Your task to perform on an android device: turn off translation in the chrome app Image 0: 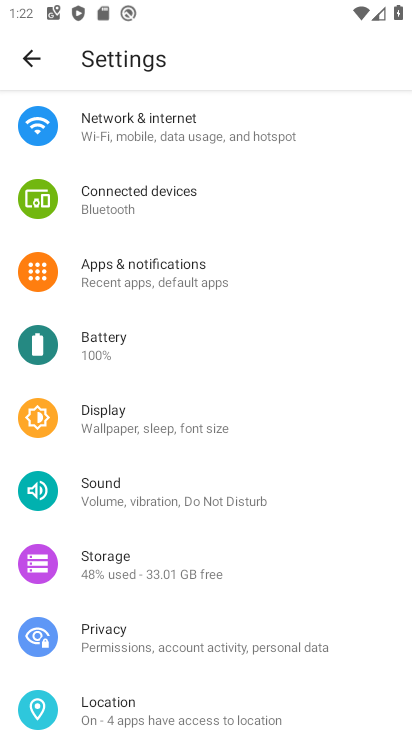
Step 0: drag from (200, 666) to (223, 231)
Your task to perform on an android device: turn off translation in the chrome app Image 1: 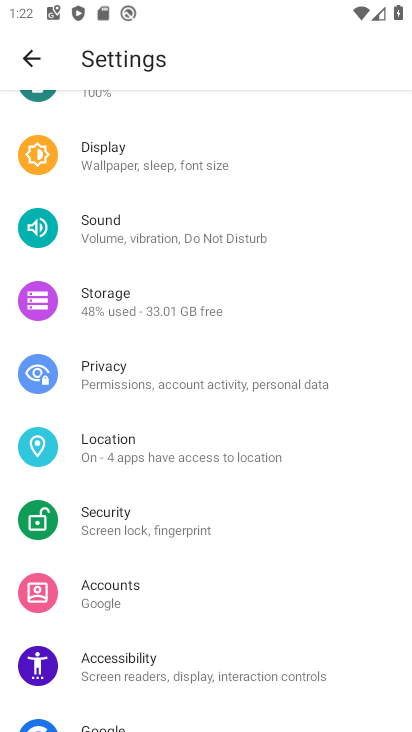
Step 1: press home button
Your task to perform on an android device: turn off translation in the chrome app Image 2: 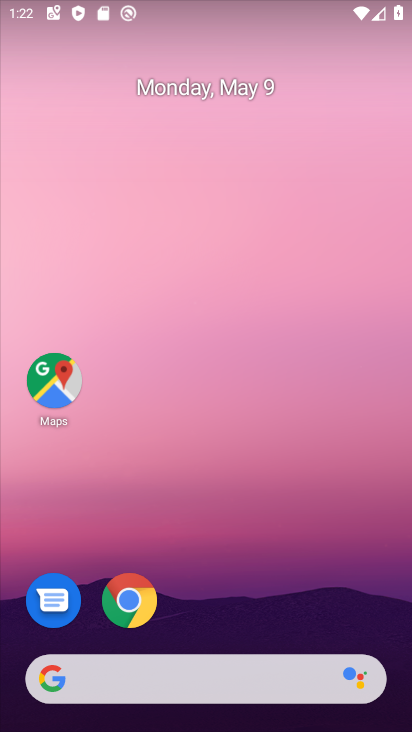
Step 2: click (122, 592)
Your task to perform on an android device: turn off translation in the chrome app Image 3: 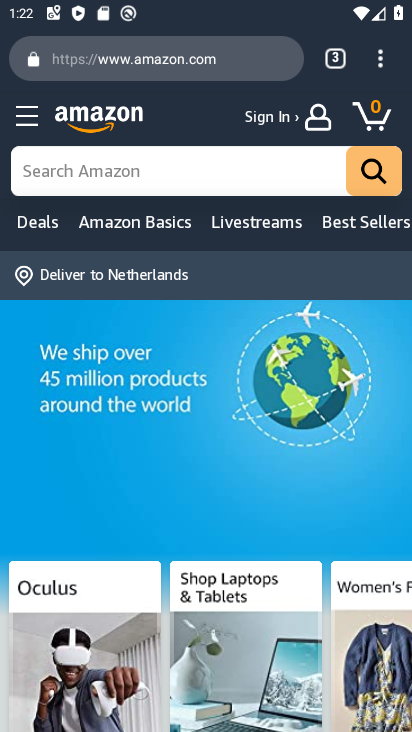
Step 3: click (396, 65)
Your task to perform on an android device: turn off translation in the chrome app Image 4: 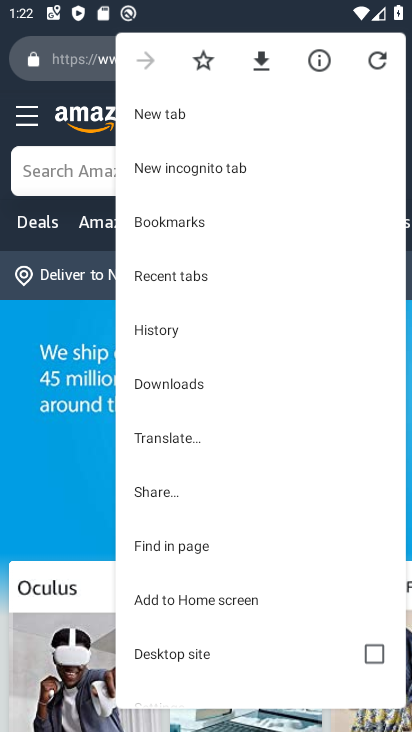
Step 4: drag from (236, 597) to (244, 92)
Your task to perform on an android device: turn off translation in the chrome app Image 5: 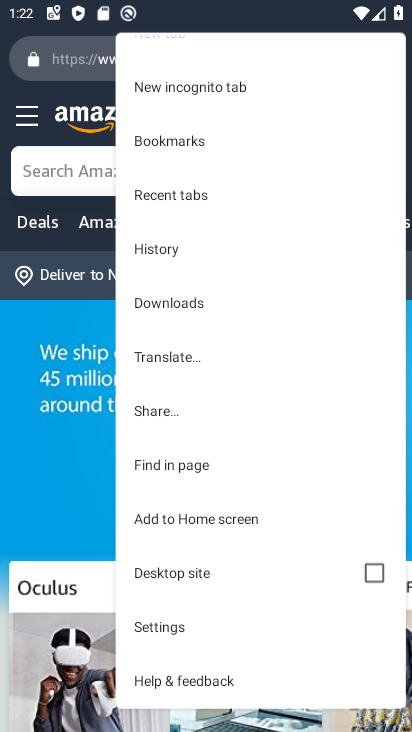
Step 5: click (176, 630)
Your task to perform on an android device: turn off translation in the chrome app Image 6: 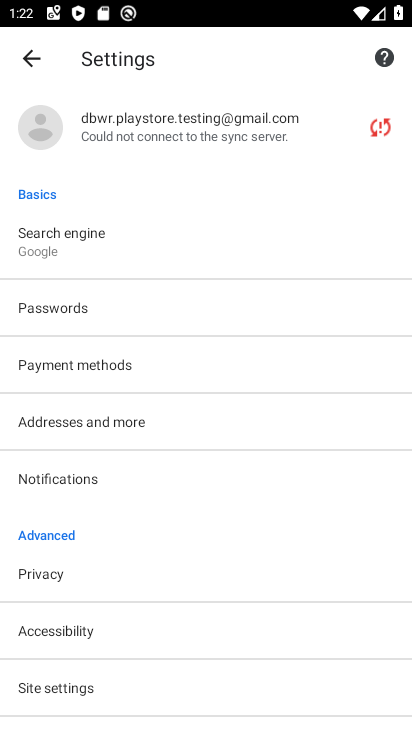
Step 6: drag from (176, 630) to (159, 462)
Your task to perform on an android device: turn off translation in the chrome app Image 7: 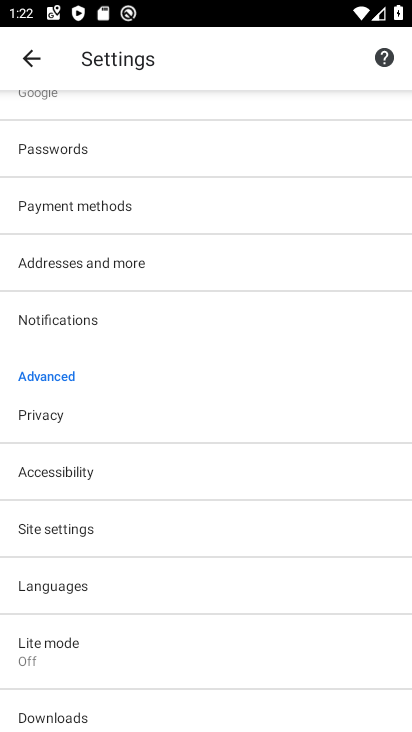
Step 7: click (244, 593)
Your task to perform on an android device: turn off translation in the chrome app Image 8: 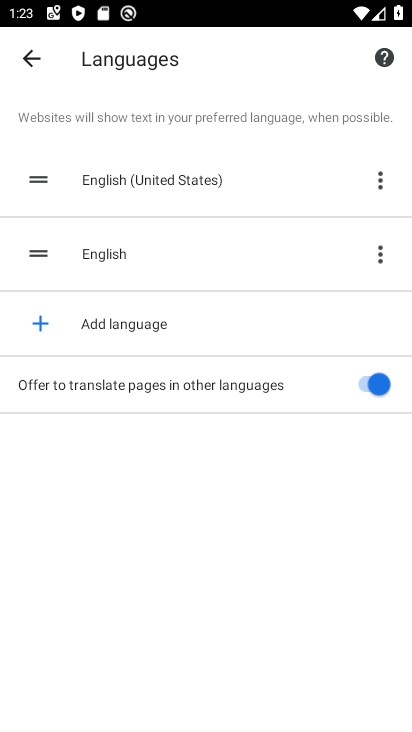
Step 8: click (371, 387)
Your task to perform on an android device: turn off translation in the chrome app Image 9: 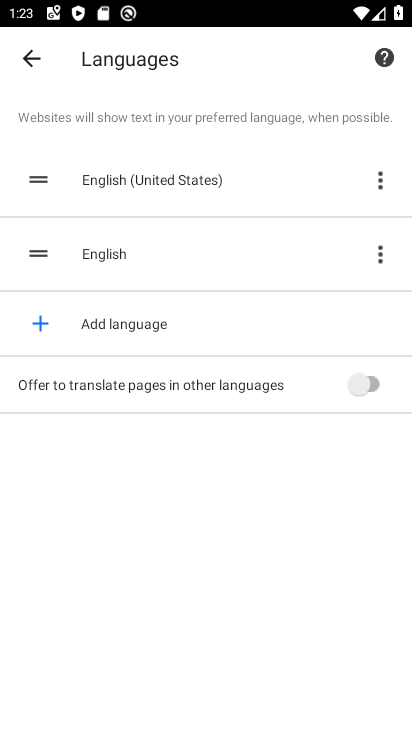
Step 9: task complete